Your task to perform on an android device: set the timer Image 0: 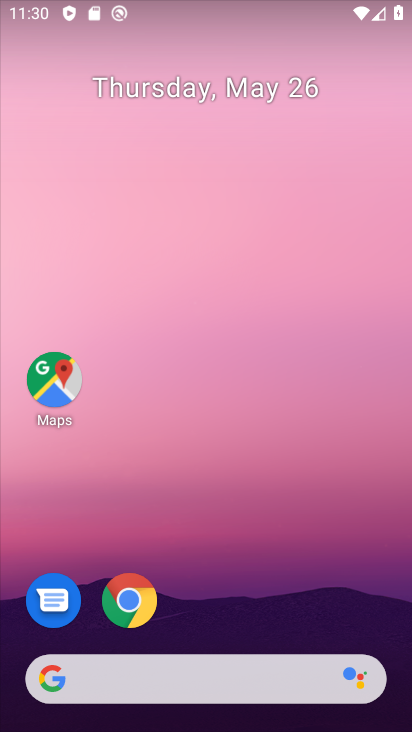
Step 0: drag from (210, 624) to (229, 10)
Your task to perform on an android device: set the timer Image 1: 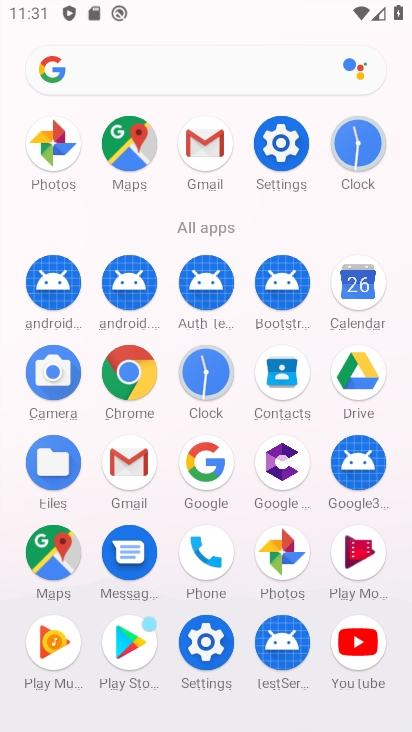
Step 1: click (218, 356)
Your task to perform on an android device: set the timer Image 2: 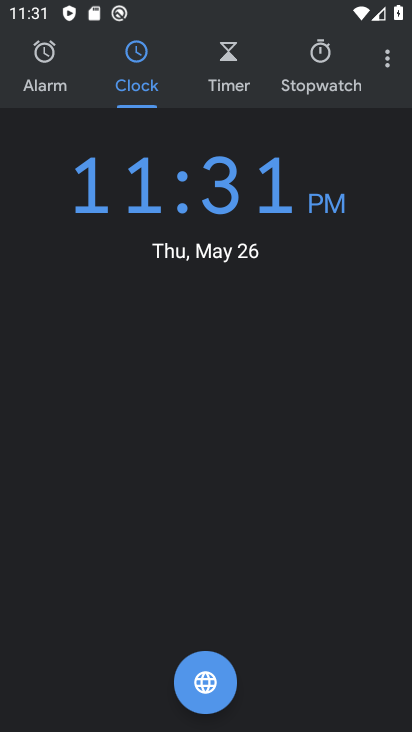
Step 2: click (212, 54)
Your task to perform on an android device: set the timer Image 3: 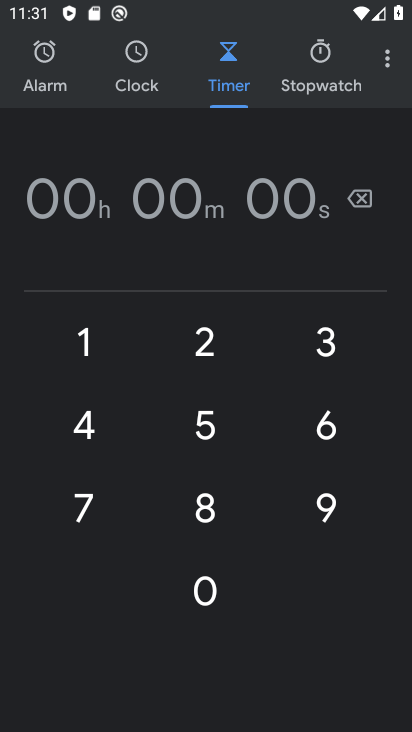
Step 3: click (204, 310)
Your task to perform on an android device: set the timer Image 4: 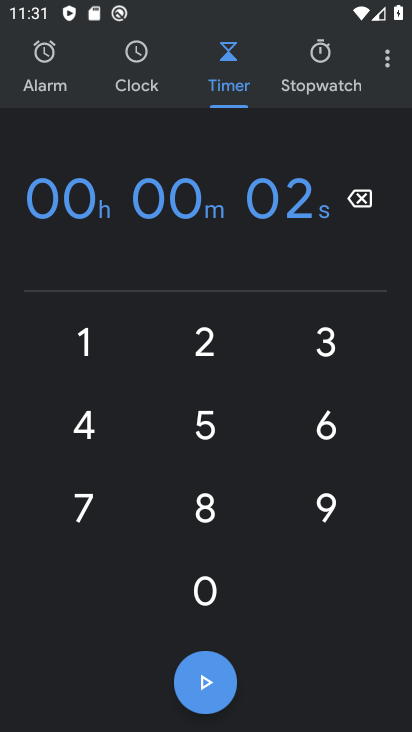
Step 4: click (211, 656)
Your task to perform on an android device: set the timer Image 5: 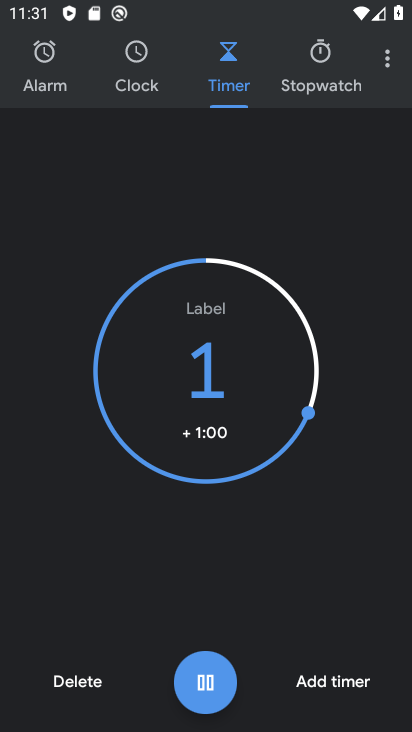
Step 5: task complete